Your task to perform on an android device: Open settings on Google Maps Image 0: 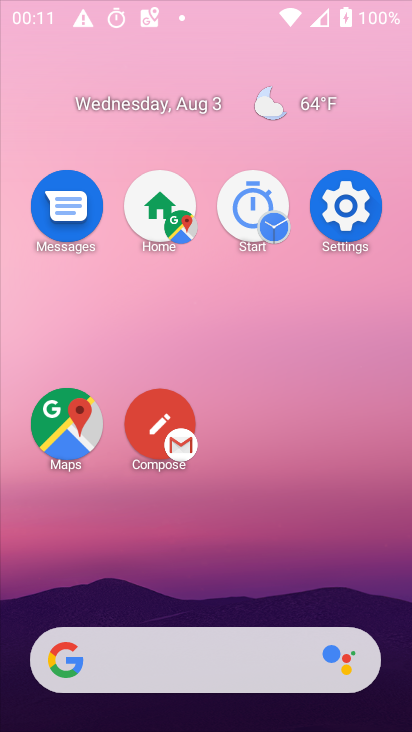
Step 0: click (259, 365)
Your task to perform on an android device: Open settings on Google Maps Image 1: 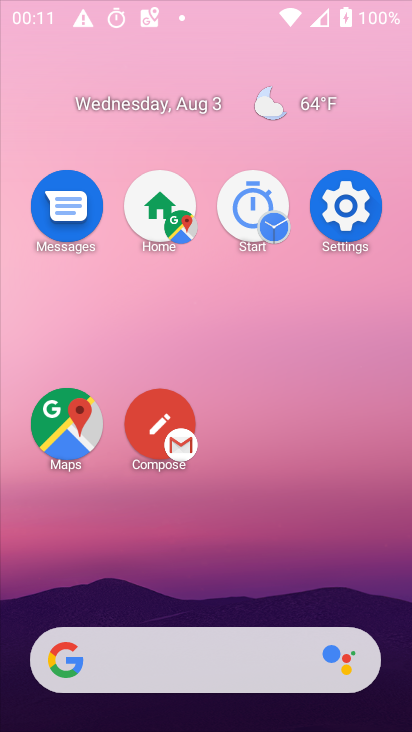
Step 1: drag from (290, 692) to (225, 445)
Your task to perform on an android device: Open settings on Google Maps Image 2: 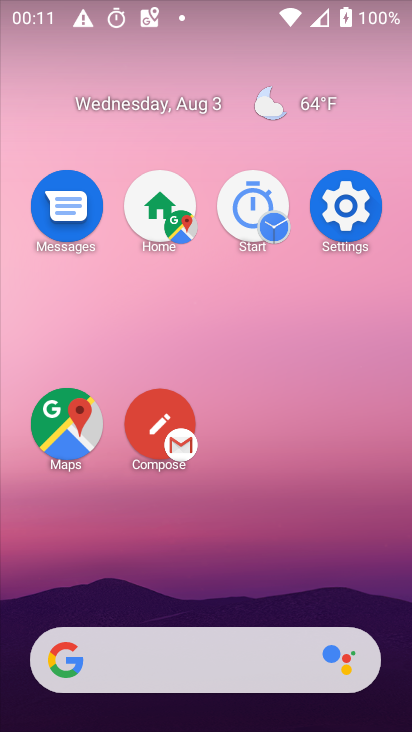
Step 2: click (63, 432)
Your task to perform on an android device: Open settings on Google Maps Image 3: 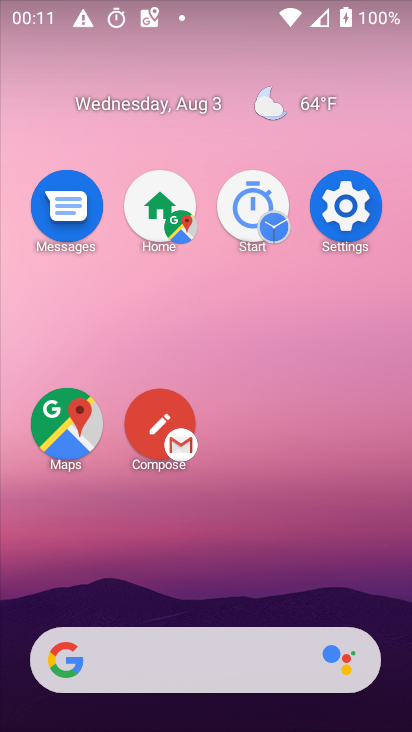
Step 3: click (67, 431)
Your task to perform on an android device: Open settings on Google Maps Image 4: 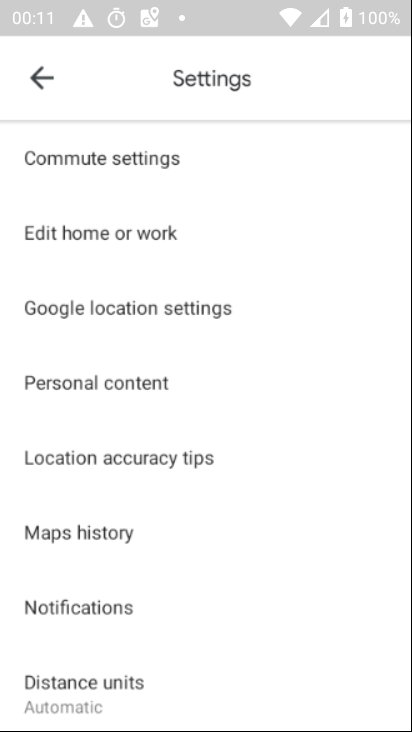
Step 4: click (68, 432)
Your task to perform on an android device: Open settings on Google Maps Image 5: 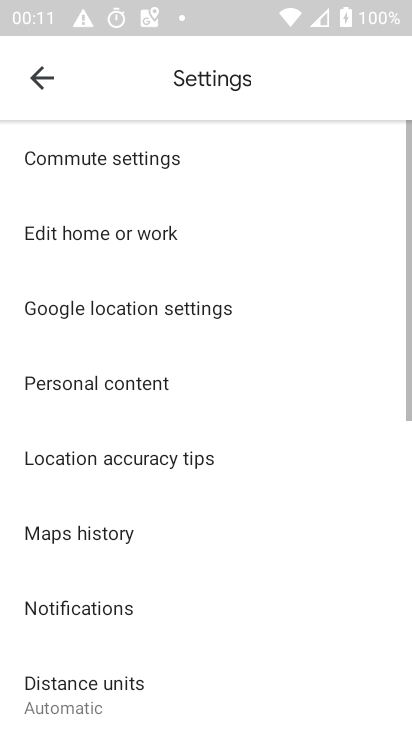
Step 5: click (48, 75)
Your task to perform on an android device: Open settings on Google Maps Image 6: 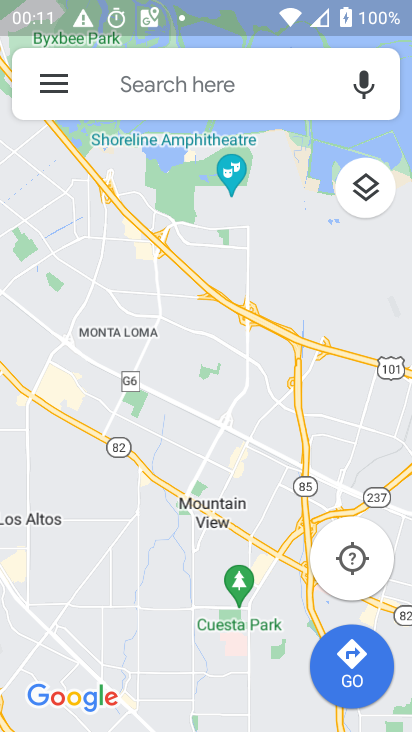
Step 6: task complete